Your task to perform on an android device: Go to Amazon Image 0: 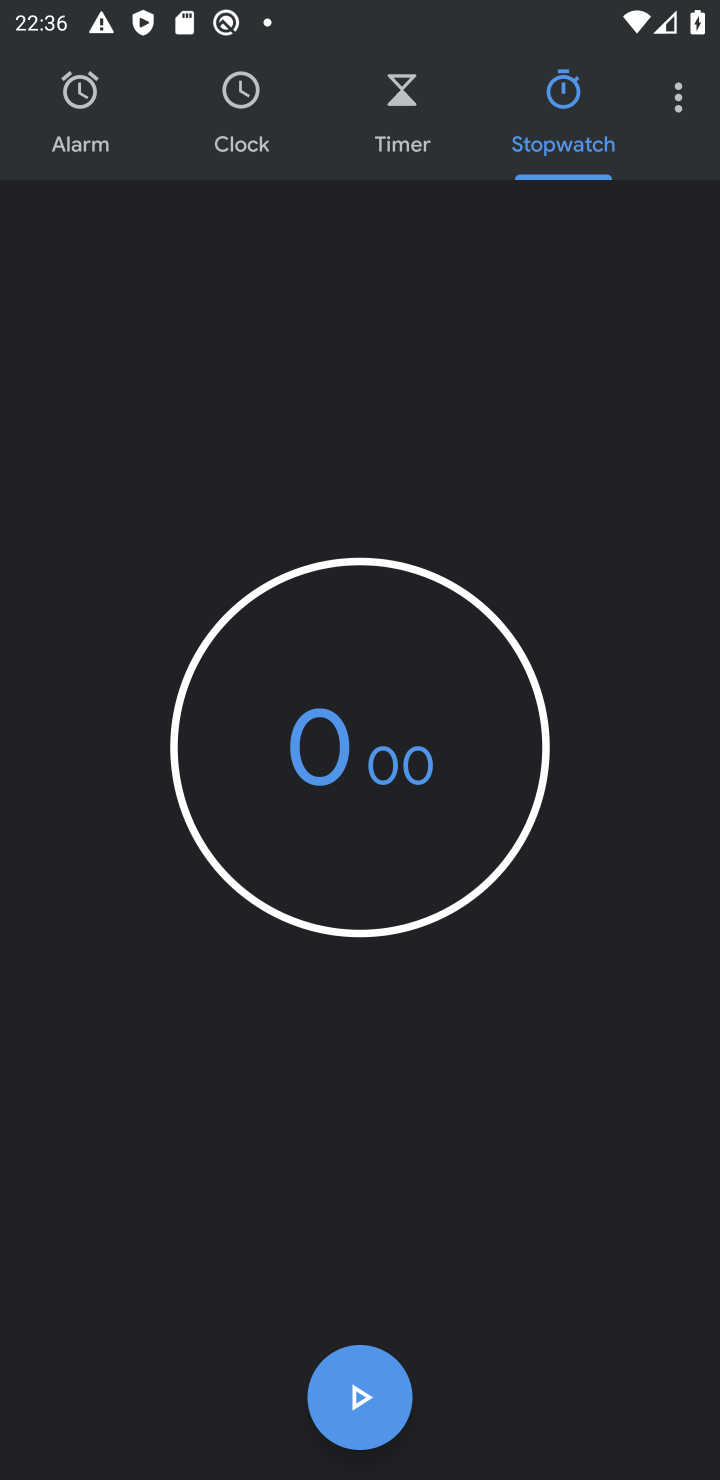
Step 0: press home button
Your task to perform on an android device: Go to Amazon Image 1: 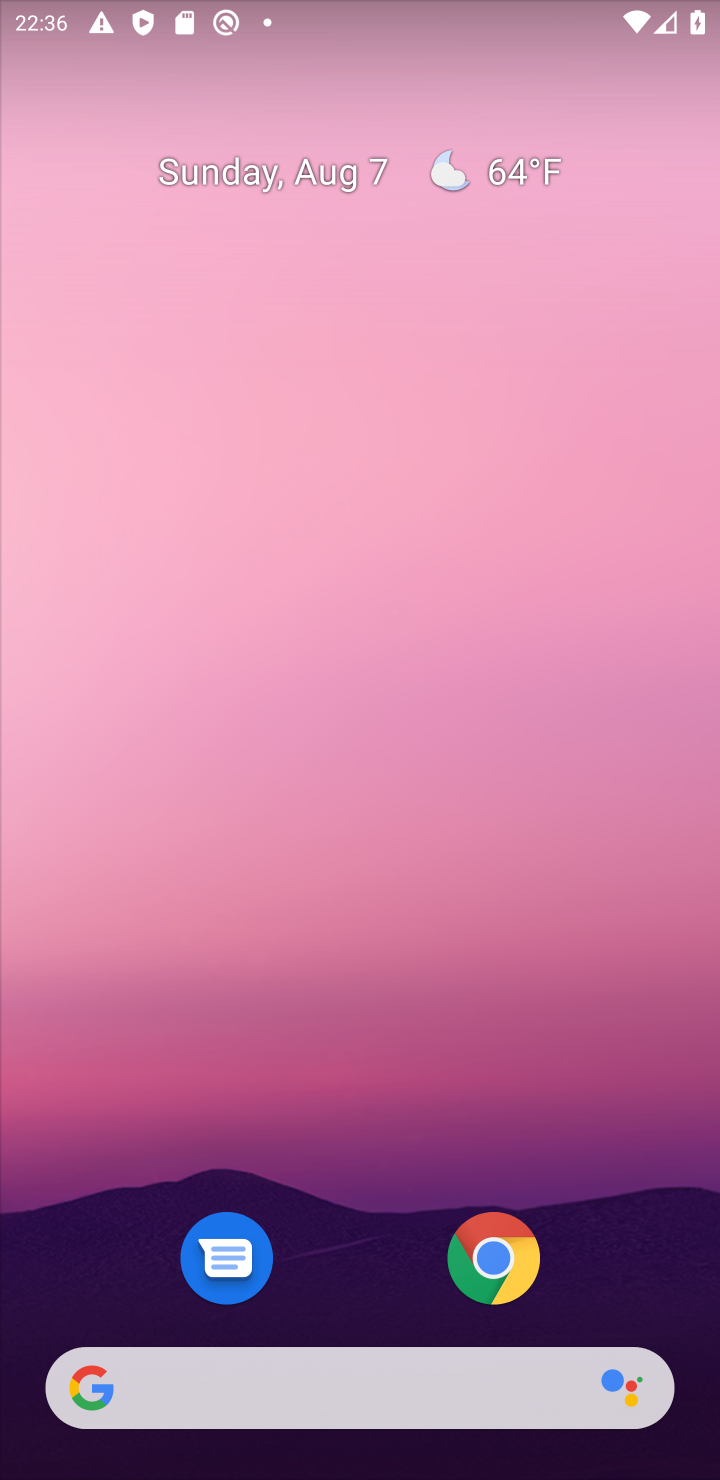
Step 1: drag from (314, 1247) to (163, 123)
Your task to perform on an android device: Go to Amazon Image 2: 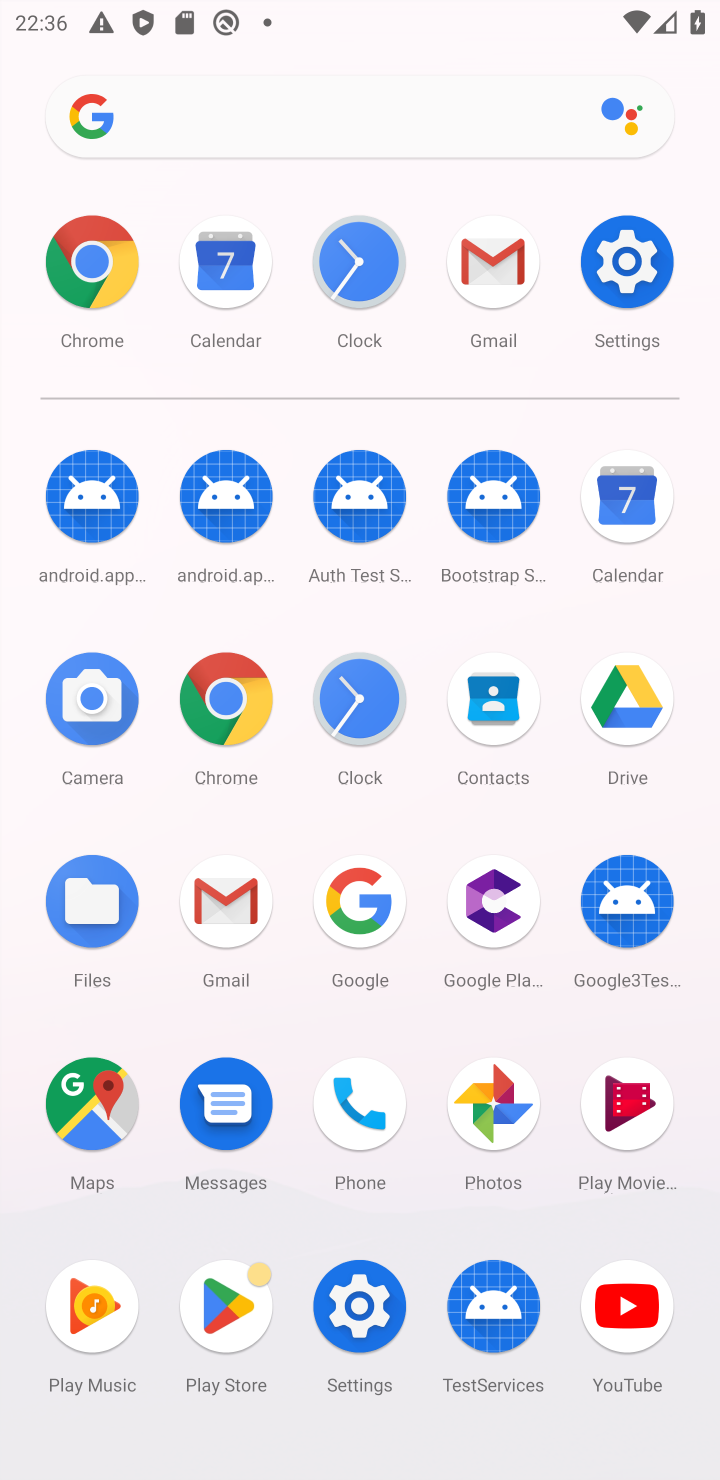
Step 2: click (216, 680)
Your task to perform on an android device: Go to Amazon Image 3: 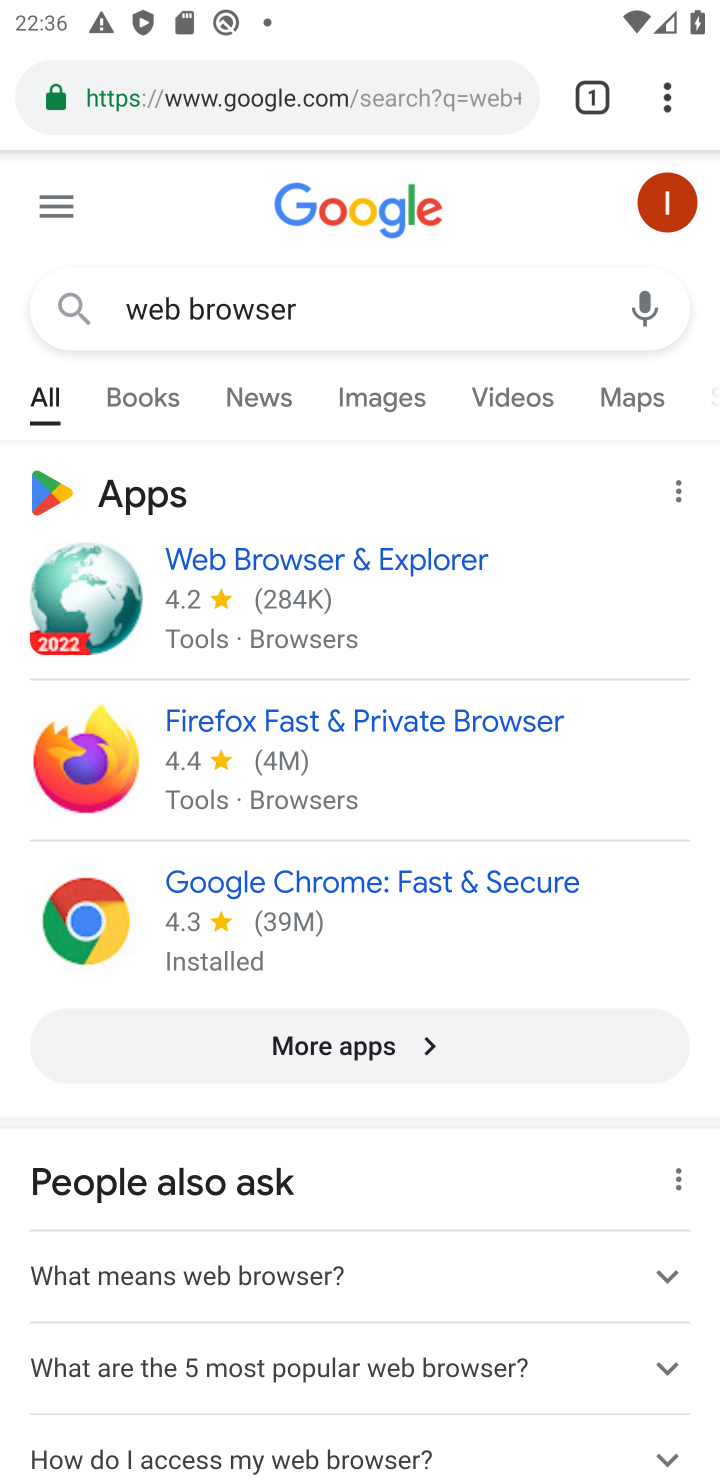
Step 3: click (329, 97)
Your task to perform on an android device: Go to Amazon Image 4: 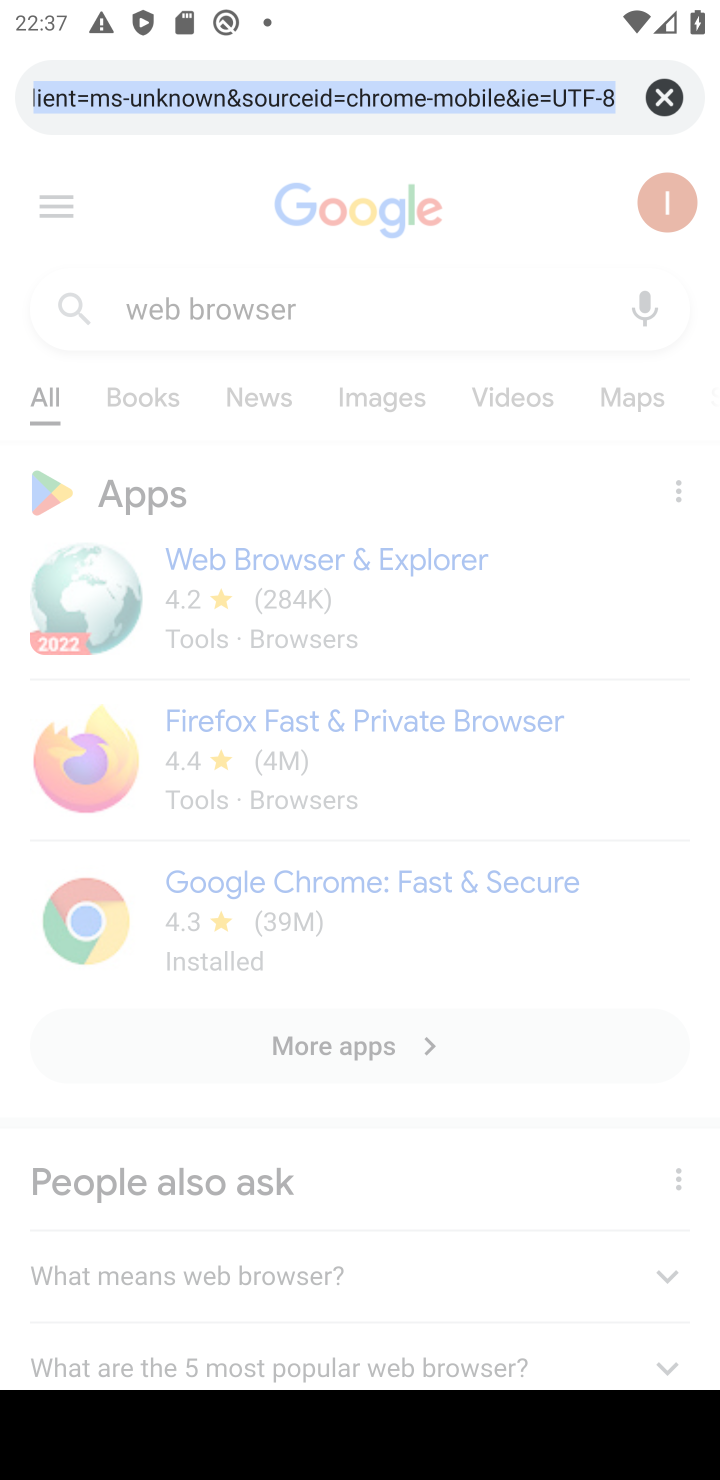
Step 4: type "amazon"
Your task to perform on an android device: Go to Amazon Image 5: 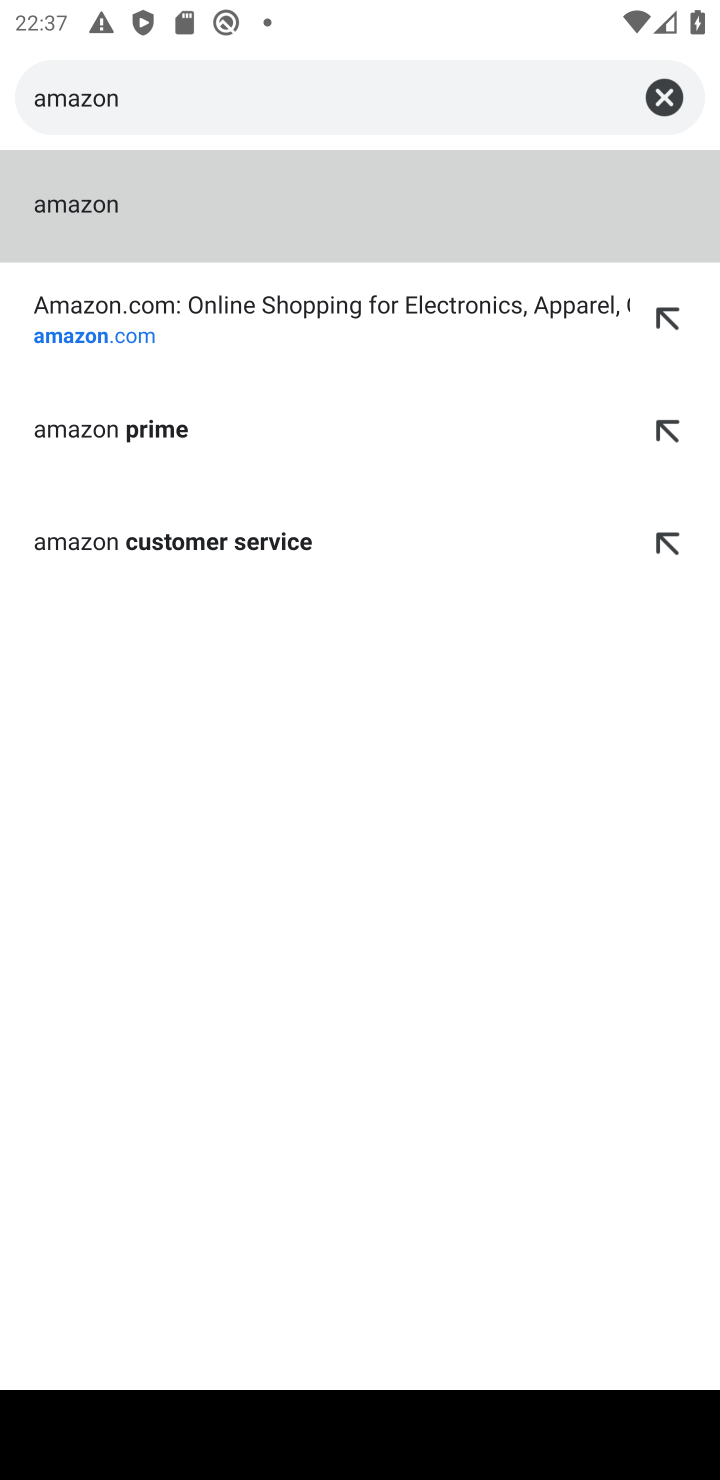
Step 5: click (199, 315)
Your task to perform on an android device: Go to Amazon Image 6: 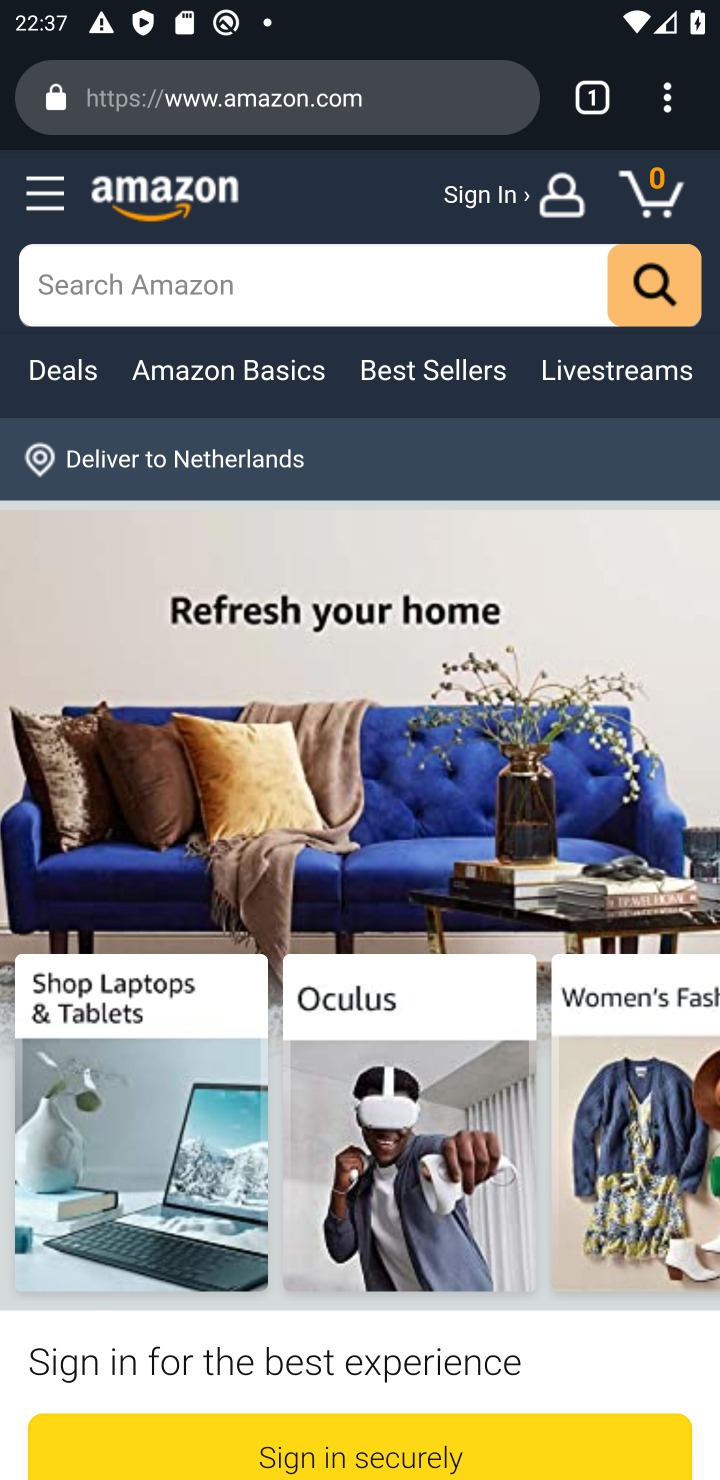
Step 6: task complete